Your task to perform on an android device: Open the calendar app, open the side menu, and click the "Day" option Image 0: 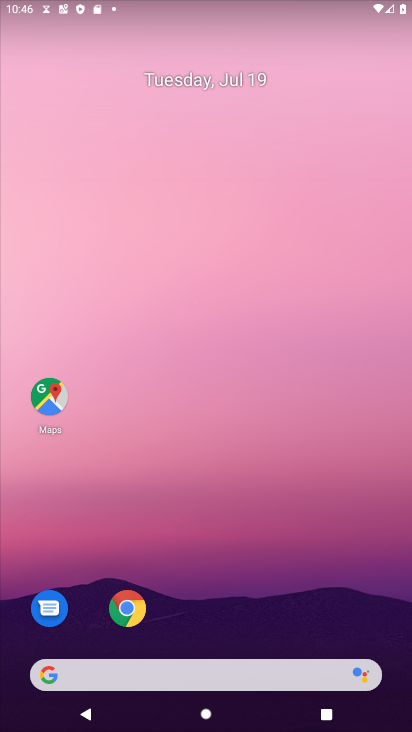
Step 0: drag from (284, 613) to (284, 174)
Your task to perform on an android device: Open the calendar app, open the side menu, and click the "Day" option Image 1: 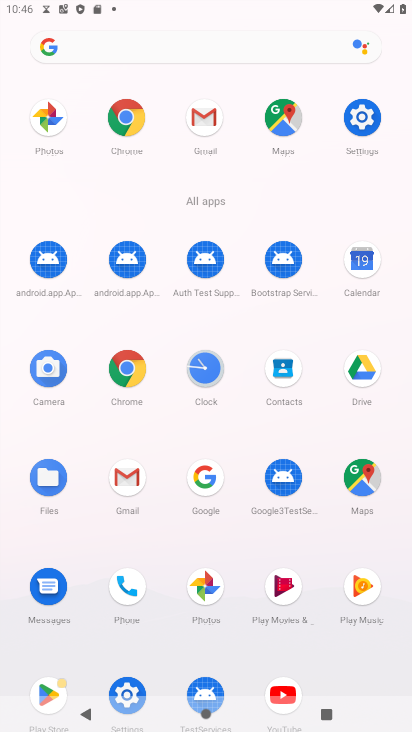
Step 1: click (365, 264)
Your task to perform on an android device: Open the calendar app, open the side menu, and click the "Day" option Image 2: 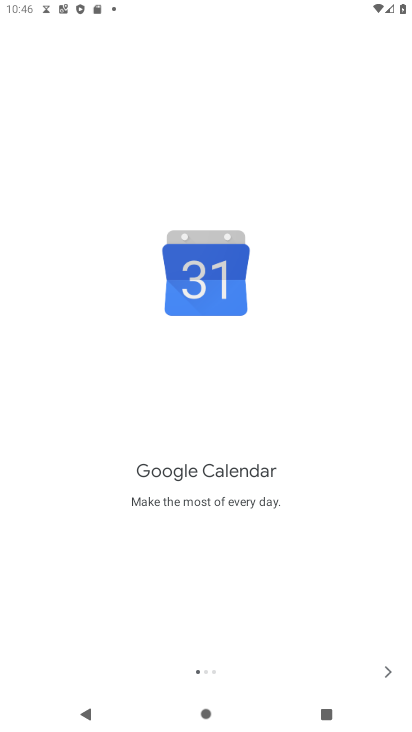
Step 2: click (385, 678)
Your task to perform on an android device: Open the calendar app, open the side menu, and click the "Day" option Image 3: 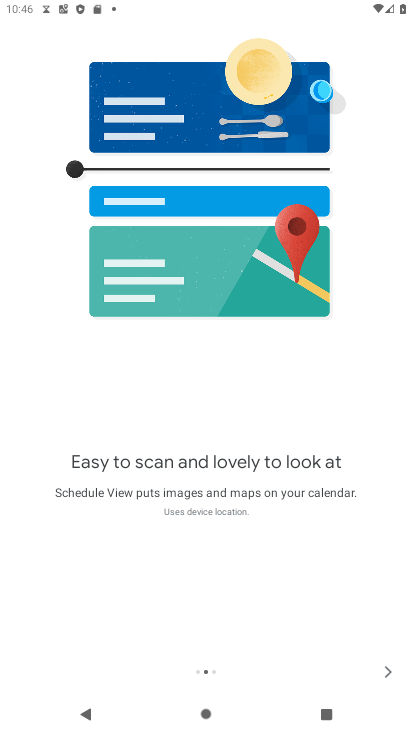
Step 3: click (385, 678)
Your task to perform on an android device: Open the calendar app, open the side menu, and click the "Day" option Image 4: 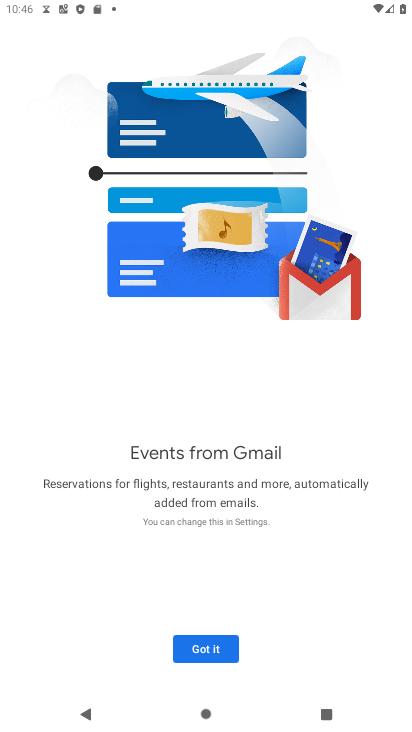
Step 4: click (222, 652)
Your task to perform on an android device: Open the calendar app, open the side menu, and click the "Day" option Image 5: 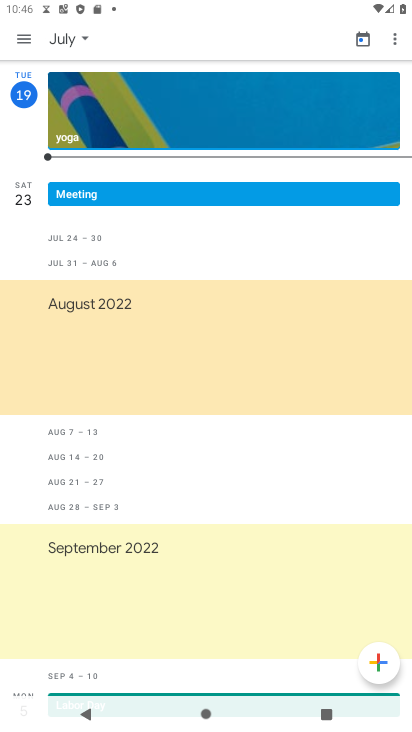
Step 5: click (22, 32)
Your task to perform on an android device: Open the calendar app, open the side menu, and click the "Day" option Image 6: 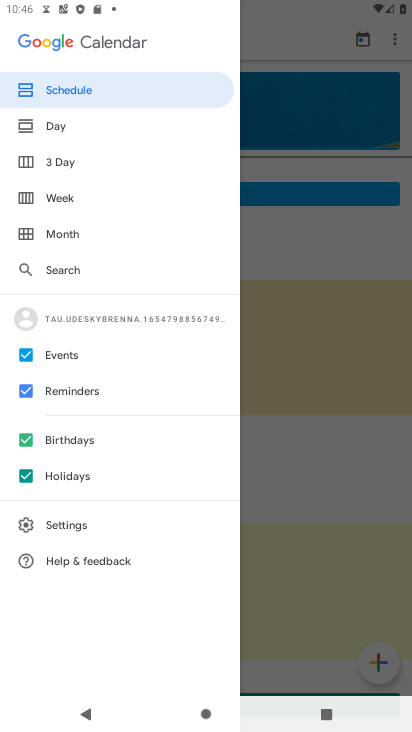
Step 6: click (51, 131)
Your task to perform on an android device: Open the calendar app, open the side menu, and click the "Day" option Image 7: 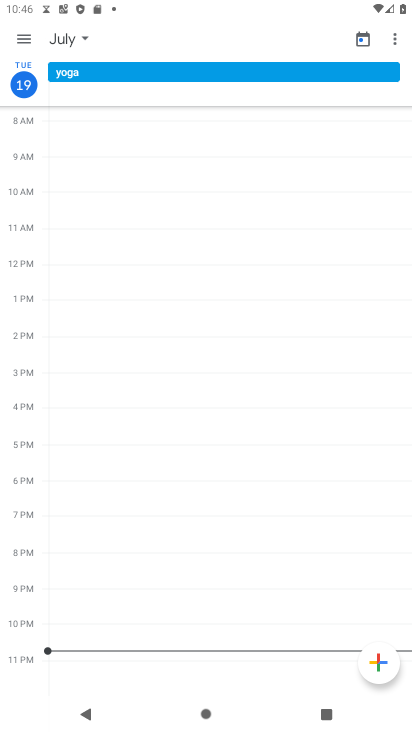
Step 7: task complete